Your task to perform on an android device: turn pop-ups on in chrome Image 0: 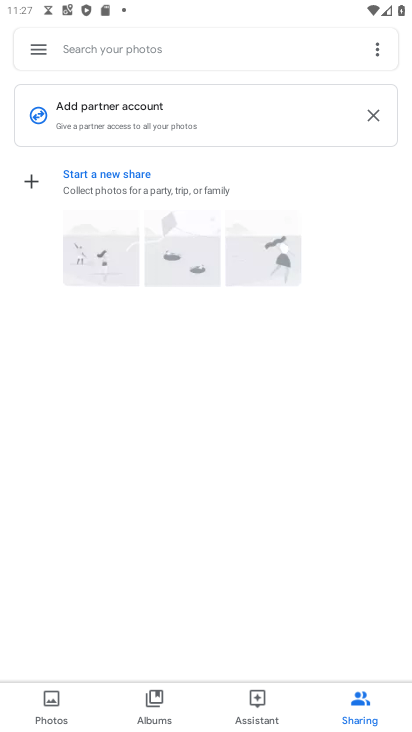
Step 0: press home button
Your task to perform on an android device: turn pop-ups on in chrome Image 1: 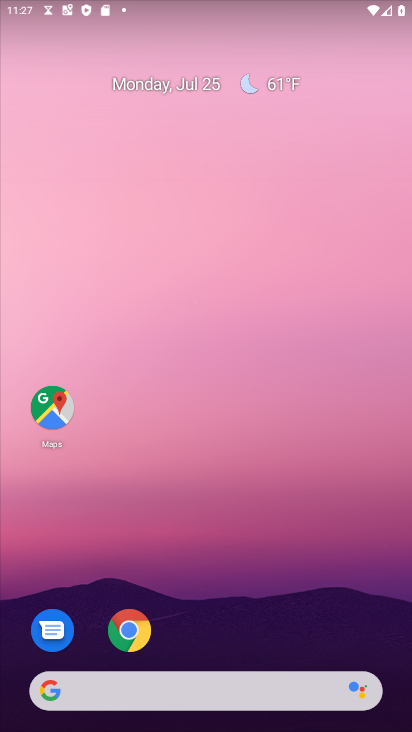
Step 1: click (134, 630)
Your task to perform on an android device: turn pop-ups on in chrome Image 2: 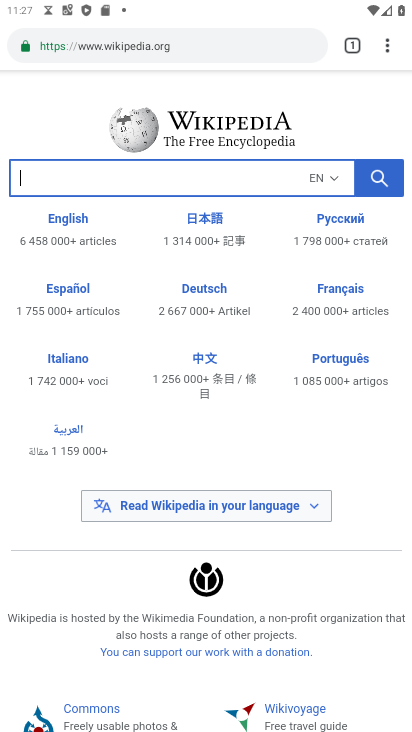
Step 2: click (382, 40)
Your task to perform on an android device: turn pop-ups on in chrome Image 3: 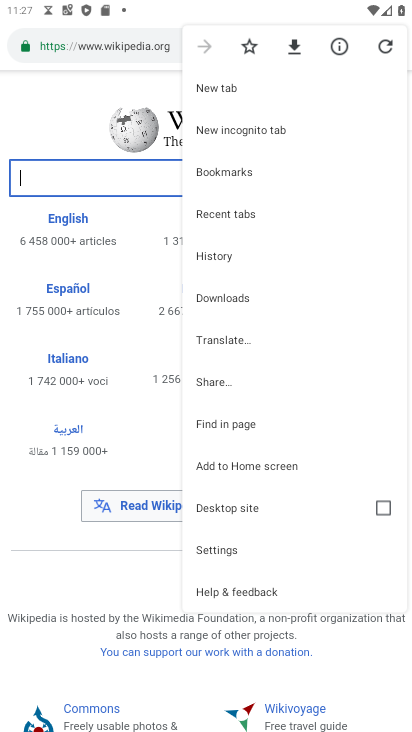
Step 3: click (212, 540)
Your task to perform on an android device: turn pop-ups on in chrome Image 4: 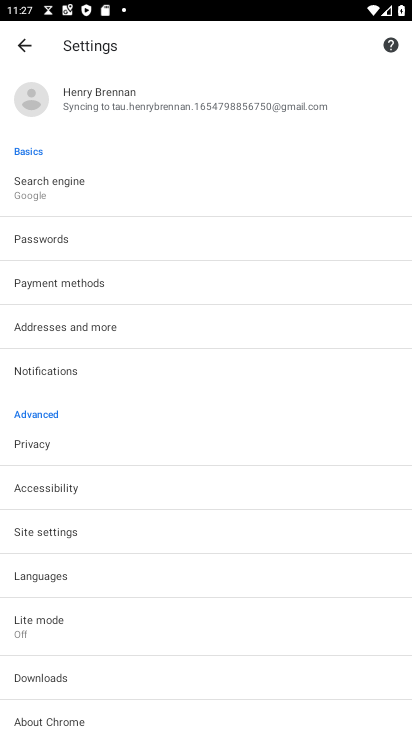
Step 4: click (69, 535)
Your task to perform on an android device: turn pop-ups on in chrome Image 5: 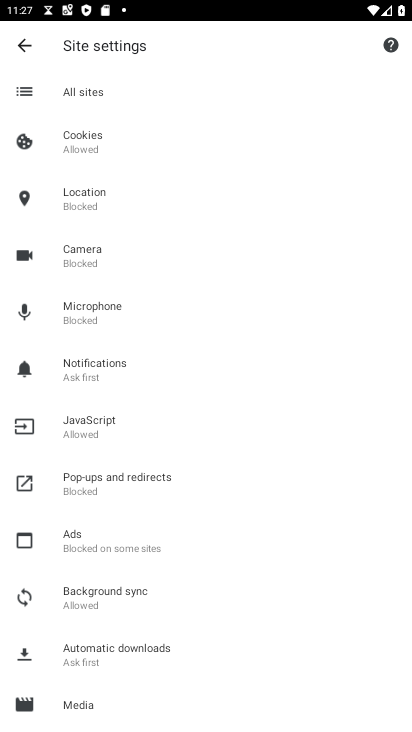
Step 5: click (96, 472)
Your task to perform on an android device: turn pop-ups on in chrome Image 6: 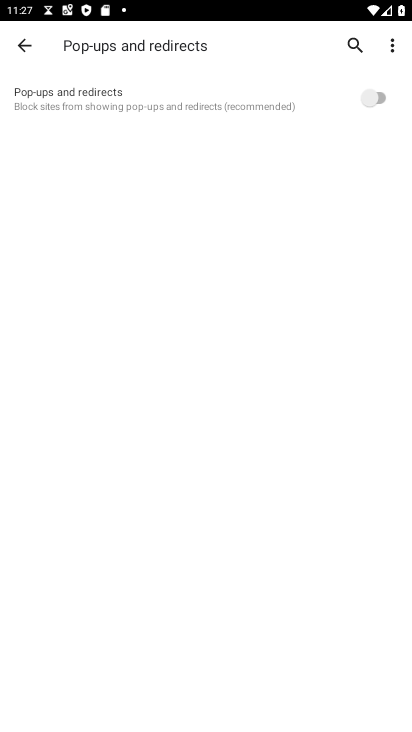
Step 6: click (384, 97)
Your task to perform on an android device: turn pop-ups on in chrome Image 7: 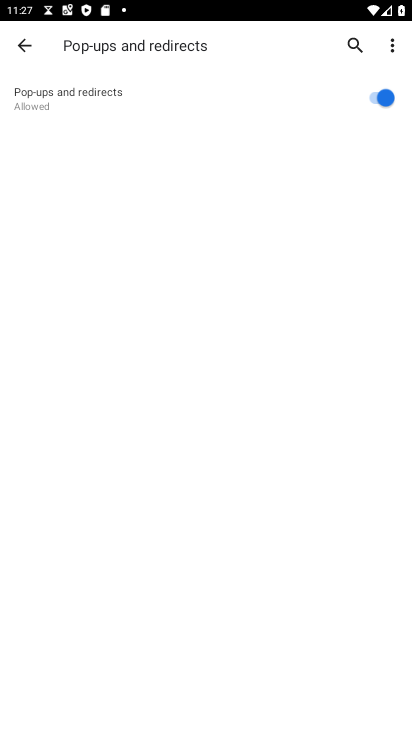
Step 7: task complete